Your task to perform on an android device: turn off improve location accuracy Image 0: 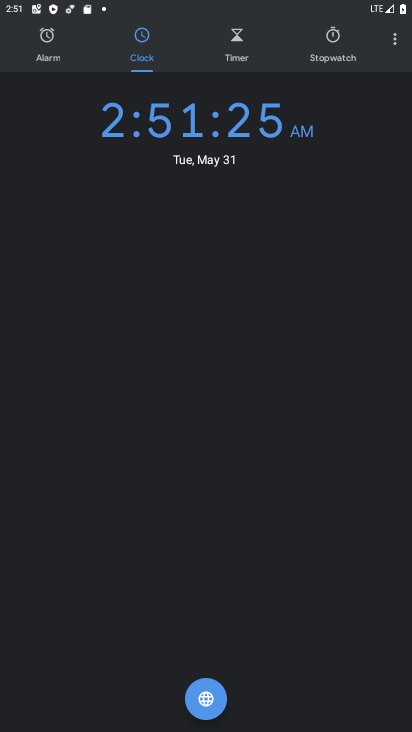
Step 0: press home button
Your task to perform on an android device: turn off improve location accuracy Image 1: 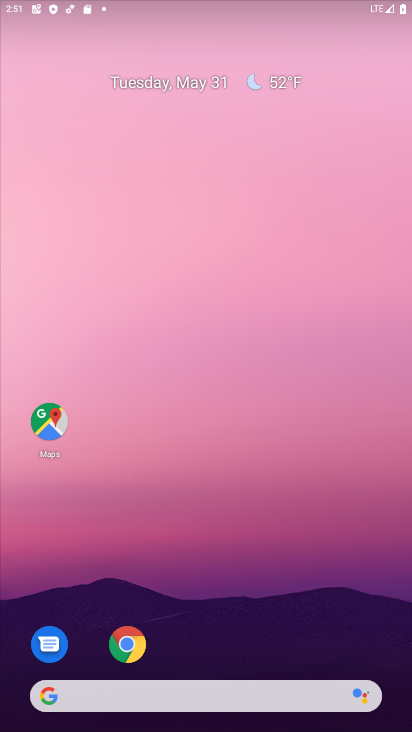
Step 1: drag from (326, 621) to (296, 46)
Your task to perform on an android device: turn off improve location accuracy Image 2: 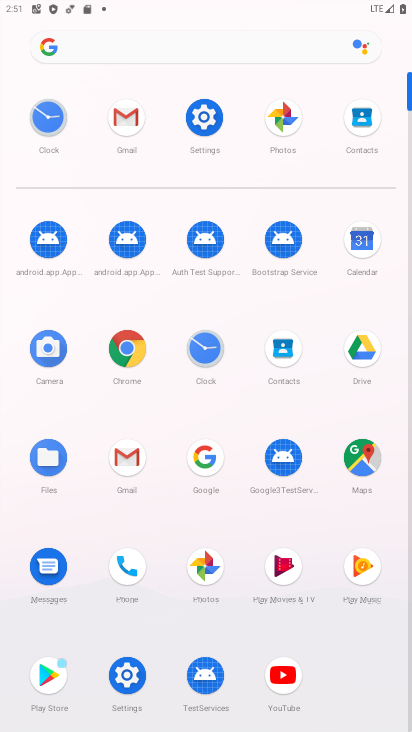
Step 2: click (212, 120)
Your task to perform on an android device: turn off improve location accuracy Image 3: 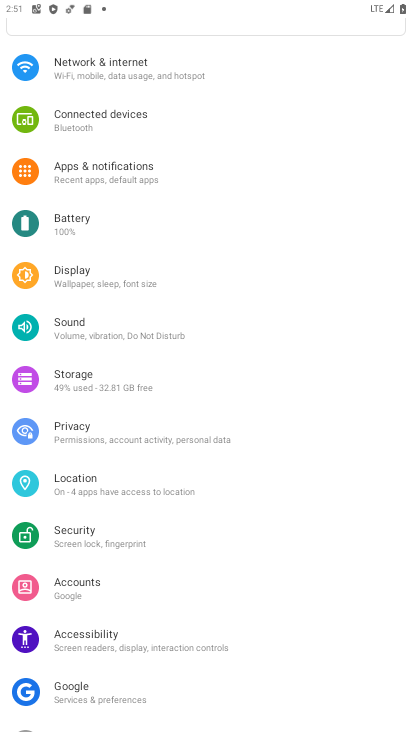
Step 3: click (215, 481)
Your task to perform on an android device: turn off improve location accuracy Image 4: 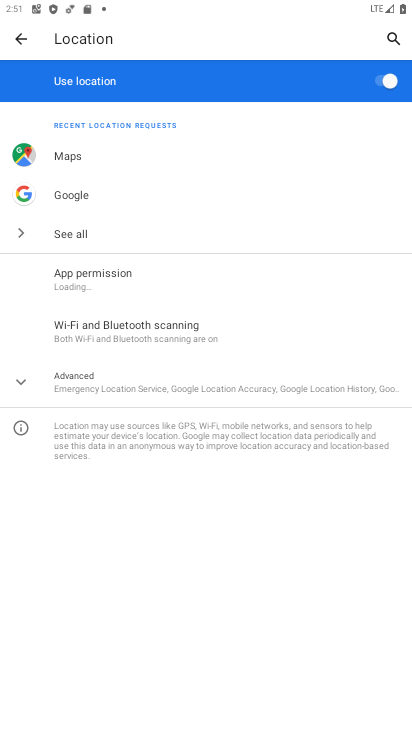
Step 4: click (17, 374)
Your task to perform on an android device: turn off improve location accuracy Image 5: 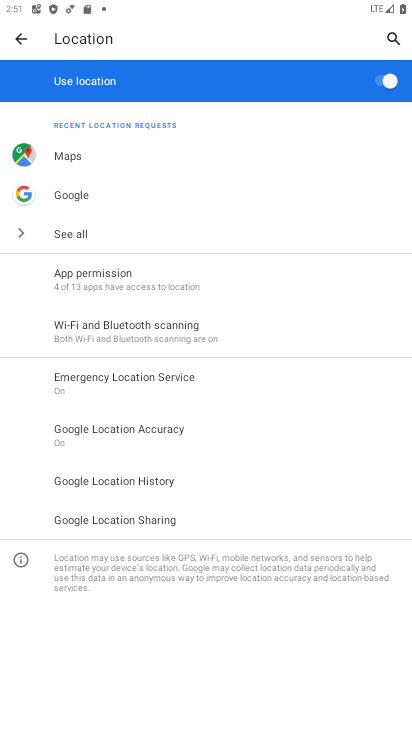
Step 5: click (168, 431)
Your task to perform on an android device: turn off improve location accuracy Image 6: 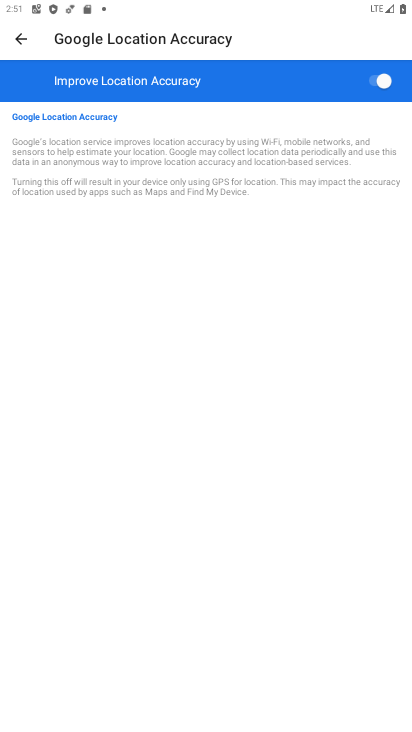
Step 6: click (370, 79)
Your task to perform on an android device: turn off improve location accuracy Image 7: 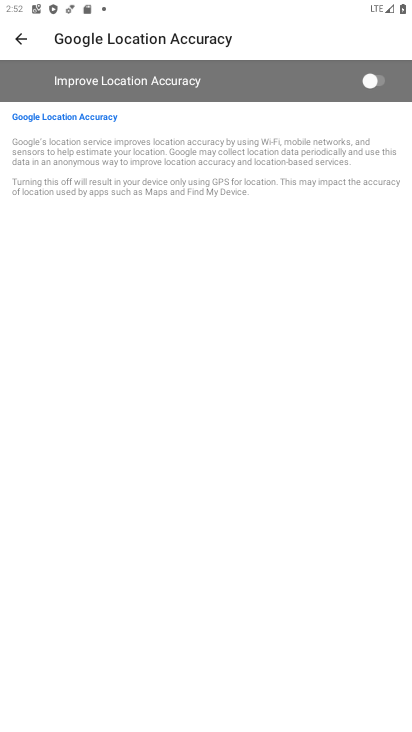
Step 7: task complete